Your task to perform on an android device: See recent photos Image 0: 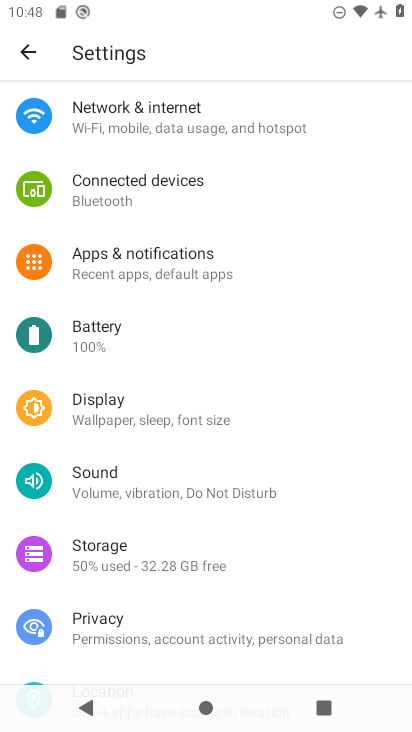
Step 0: press home button
Your task to perform on an android device: See recent photos Image 1: 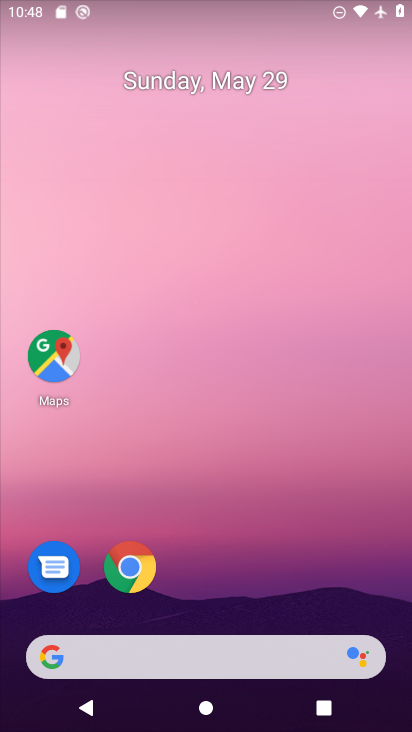
Step 1: drag from (379, 616) to (321, 96)
Your task to perform on an android device: See recent photos Image 2: 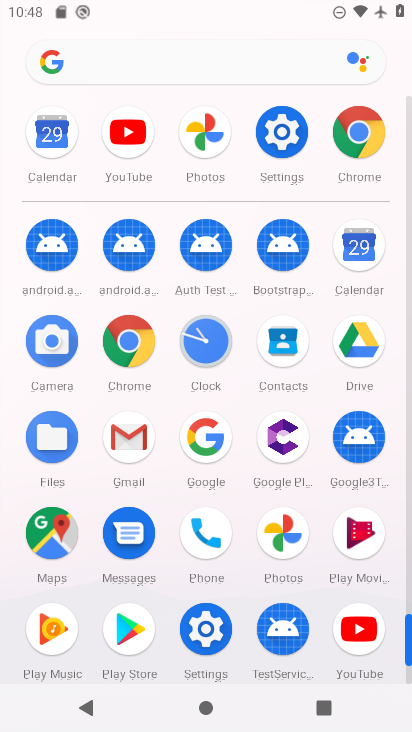
Step 2: click (282, 527)
Your task to perform on an android device: See recent photos Image 3: 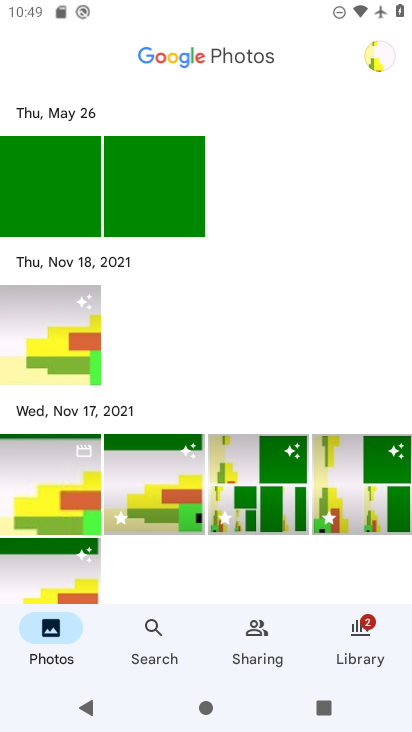
Step 3: task complete